Your task to perform on an android device: delete a single message in the gmail app Image 0: 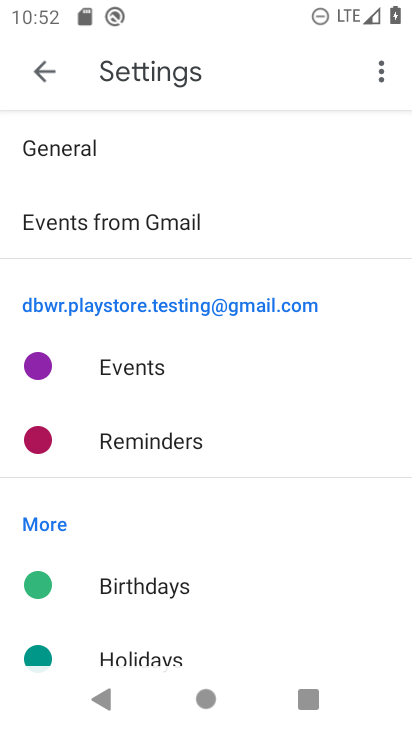
Step 0: press home button
Your task to perform on an android device: delete a single message in the gmail app Image 1: 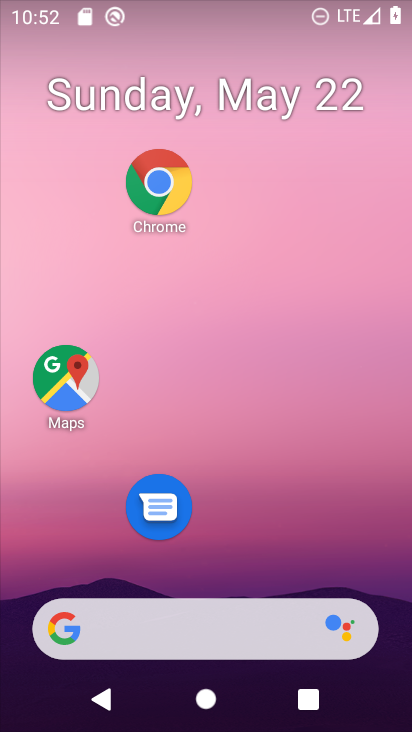
Step 1: drag from (230, 658) to (291, 9)
Your task to perform on an android device: delete a single message in the gmail app Image 2: 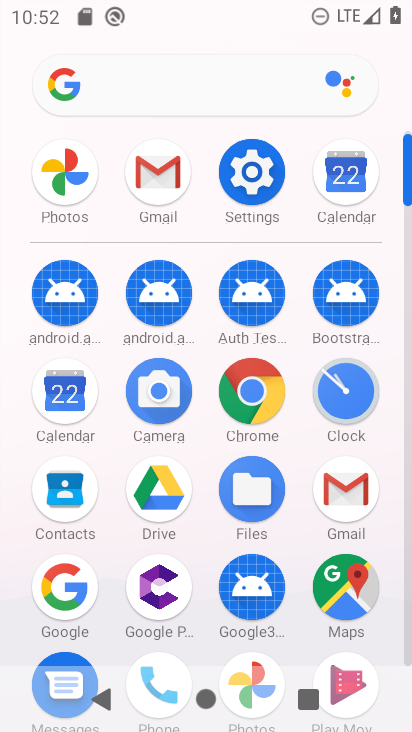
Step 2: click (166, 185)
Your task to perform on an android device: delete a single message in the gmail app Image 3: 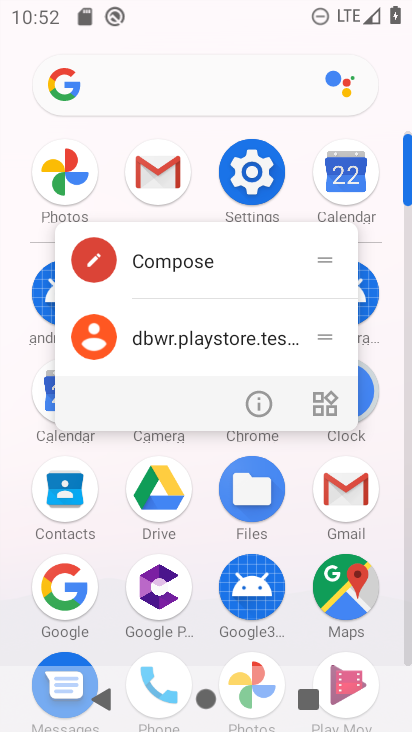
Step 3: click (176, 186)
Your task to perform on an android device: delete a single message in the gmail app Image 4: 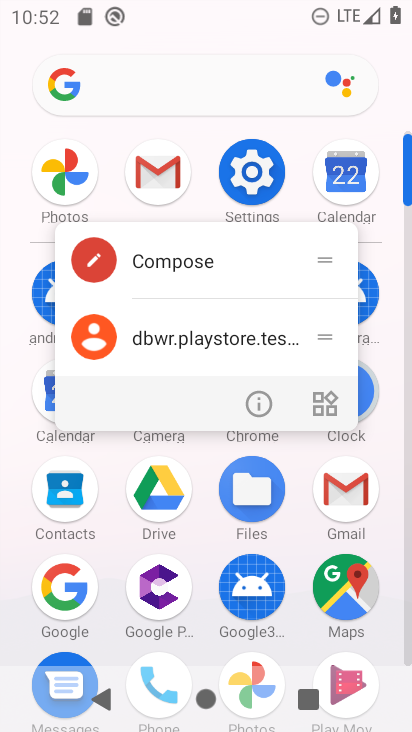
Step 4: click (176, 186)
Your task to perform on an android device: delete a single message in the gmail app Image 5: 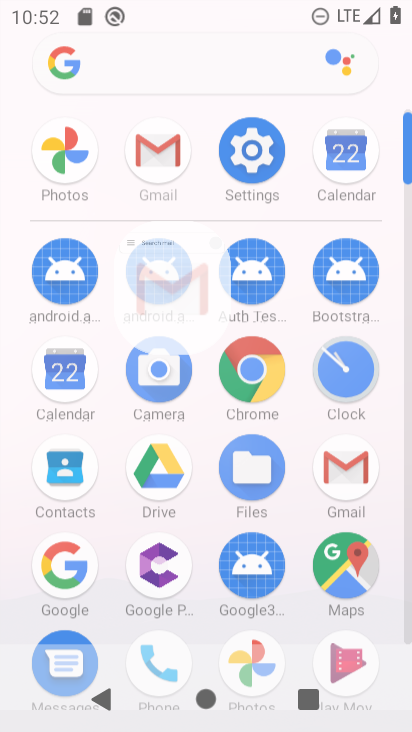
Step 5: click (176, 186)
Your task to perform on an android device: delete a single message in the gmail app Image 6: 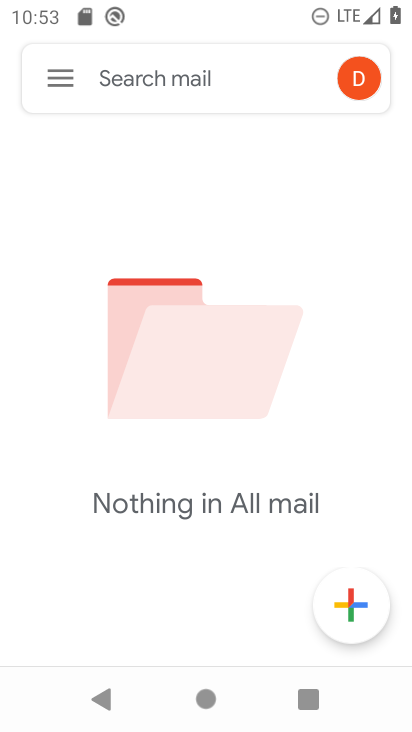
Step 6: task complete